Your task to perform on an android device: Open calendar and show me the first week of next month Image 0: 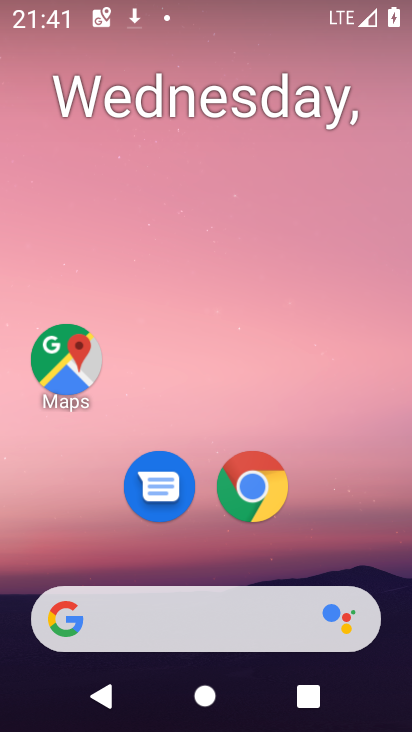
Step 0: drag from (164, 590) to (237, 151)
Your task to perform on an android device: Open calendar and show me the first week of next month Image 1: 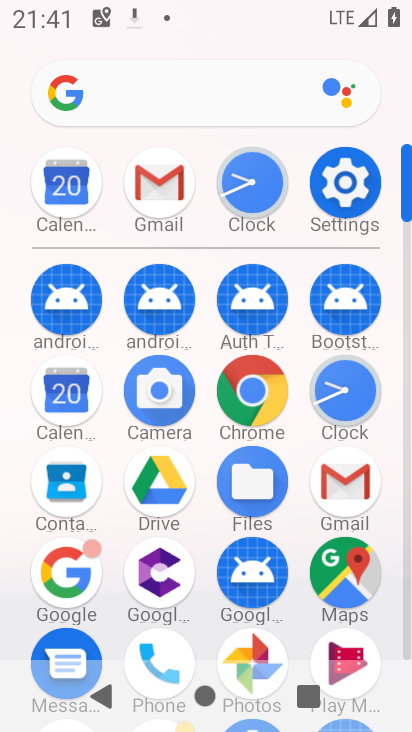
Step 1: click (72, 394)
Your task to perform on an android device: Open calendar and show me the first week of next month Image 2: 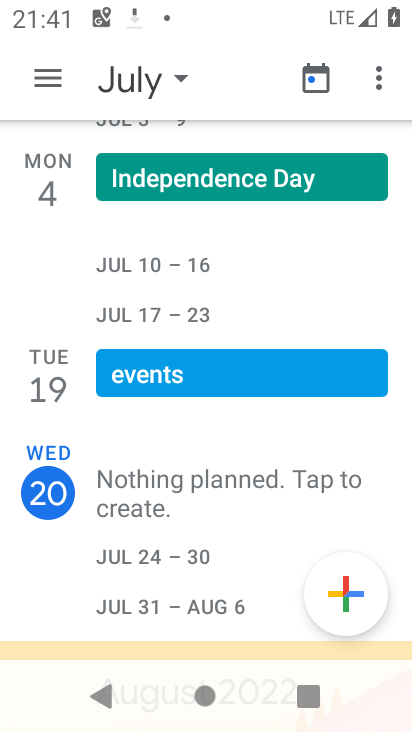
Step 2: click (158, 68)
Your task to perform on an android device: Open calendar and show me the first week of next month Image 3: 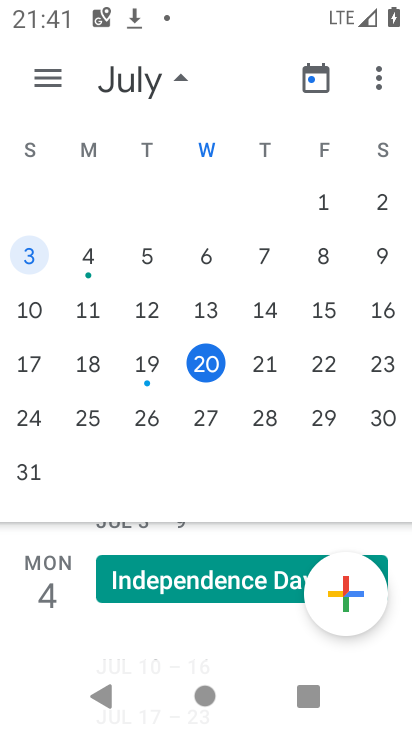
Step 3: drag from (379, 309) to (0, 316)
Your task to perform on an android device: Open calendar and show me the first week of next month Image 4: 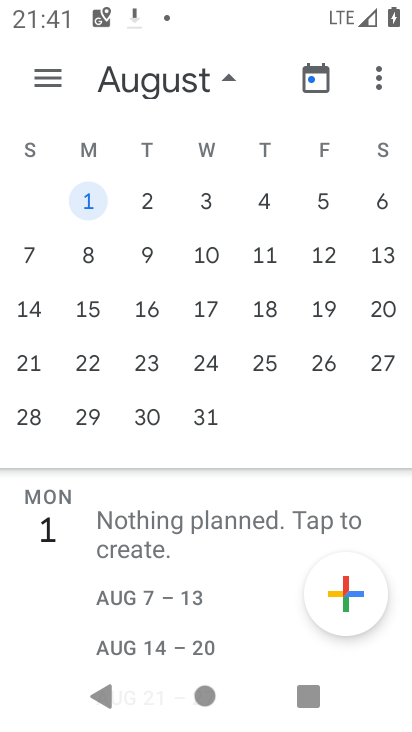
Step 4: click (87, 197)
Your task to perform on an android device: Open calendar and show me the first week of next month Image 5: 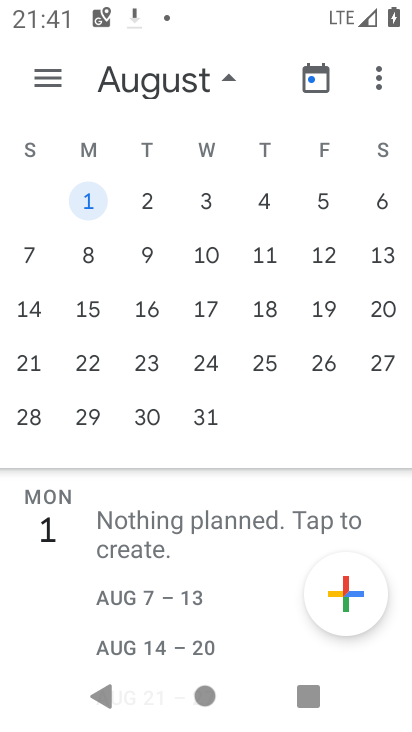
Step 5: task complete